Your task to perform on an android device: Open Wikipedia Image 0: 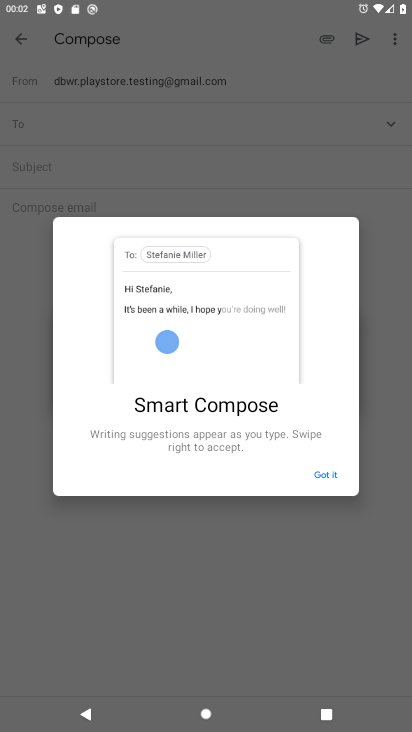
Step 0: press back button
Your task to perform on an android device: Open Wikipedia Image 1: 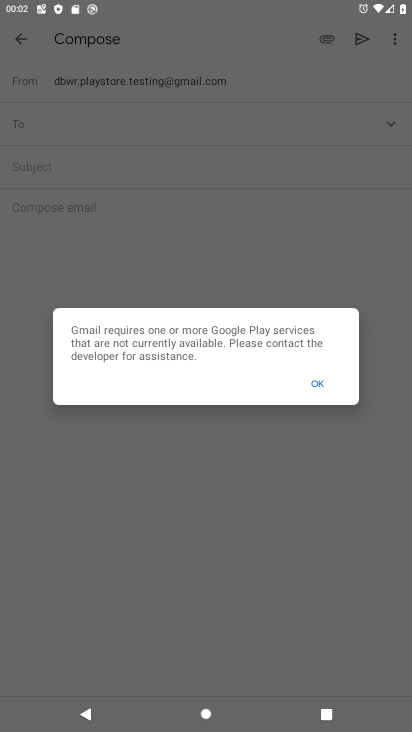
Step 1: press back button
Your task to perform on an android device: Open Wikipedia Image 2: 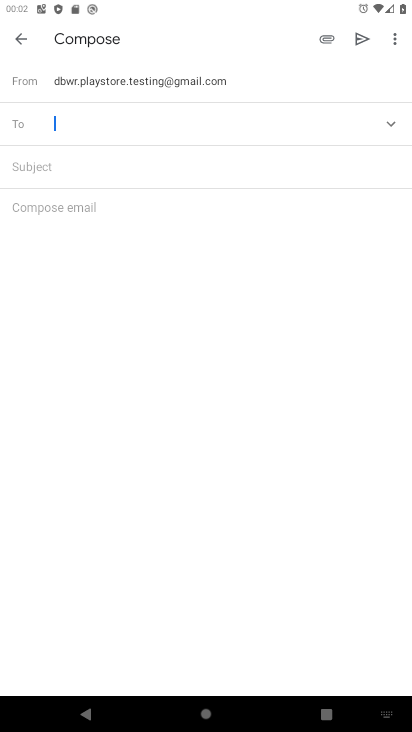
Step 2: press home button
Your task to perform on an android device: Open Wikipedia Image 3: 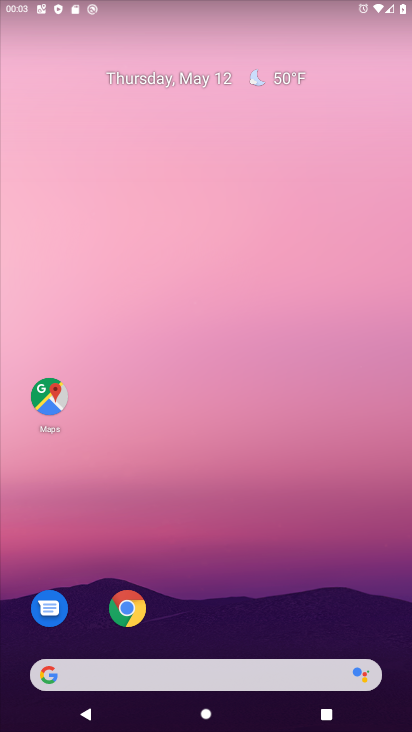
Step 3: click (125, 608)
Your task to perform on an android device: Open Wikipedia Image 4: 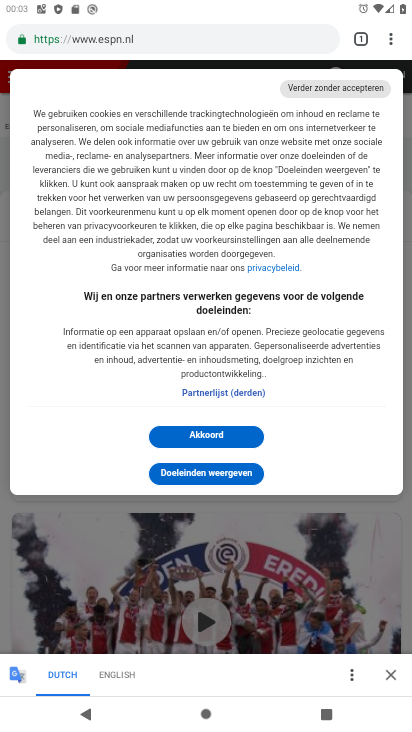
Step 4: click (288, 39)
Your task to perform on an android device: Open Wikipedia Image 5: 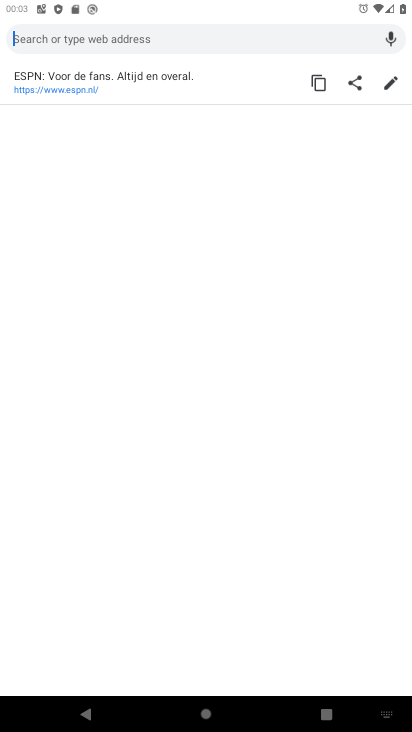
Step 5: type "Wikipedia"
Your task to perform on an android device: Open Wikipedia Image 6: 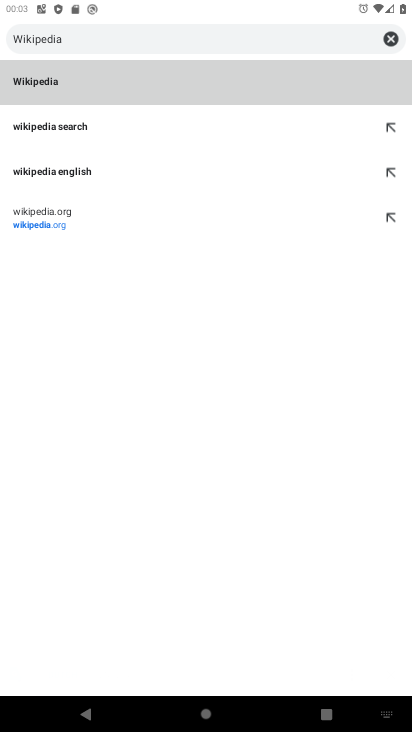
Step 6: click (59, 84)
Your task to perform on an android device: Open Wikipedia Image 7: 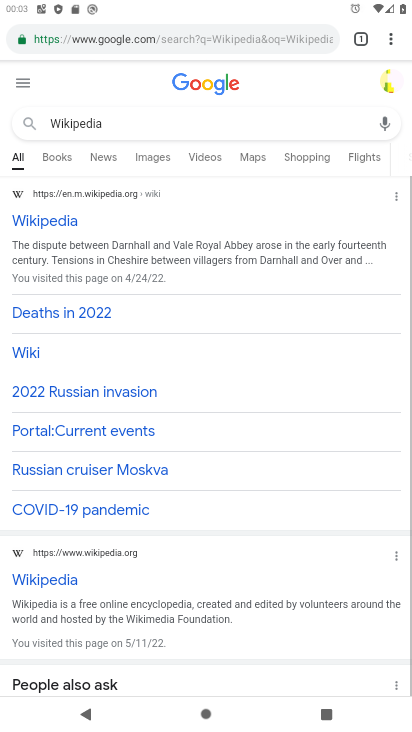
Step 7: click (51, 223)
Your task to perform on an android device: Open Wikipedia Image 8: 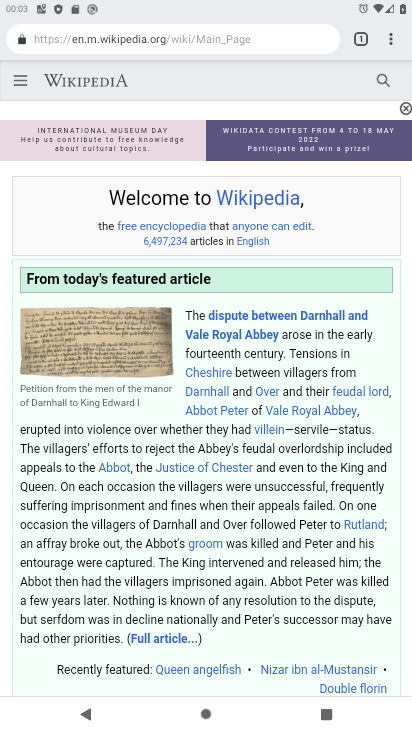
Step 8: task complete